Your task to perform on an android device: Search for pizza restaurants on Maps Image 0: 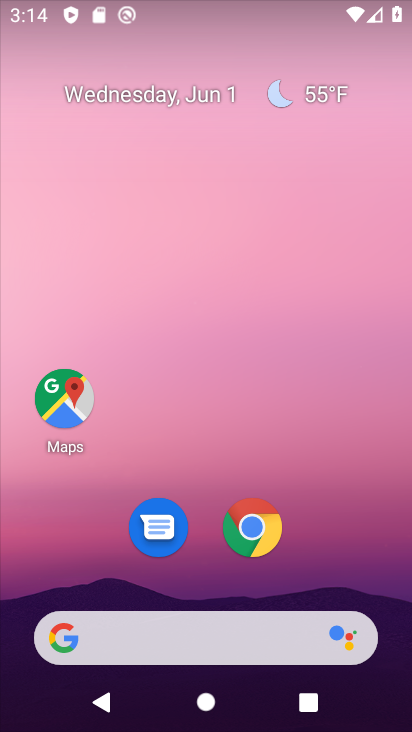
Step 0: press home button
Your task to perform on an android device: Search for pizza restaurants on Maps Image 1: 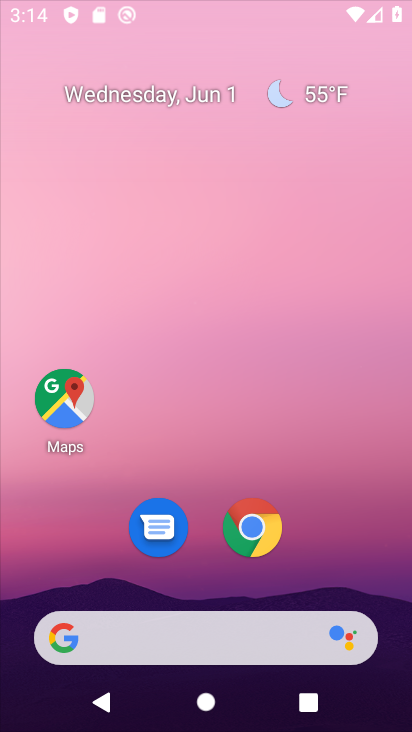
Step 1: drag from (338, 584) to (360, 372)
Your task to perform on an android device: Search for pizza restaurants on Maps Image 2: 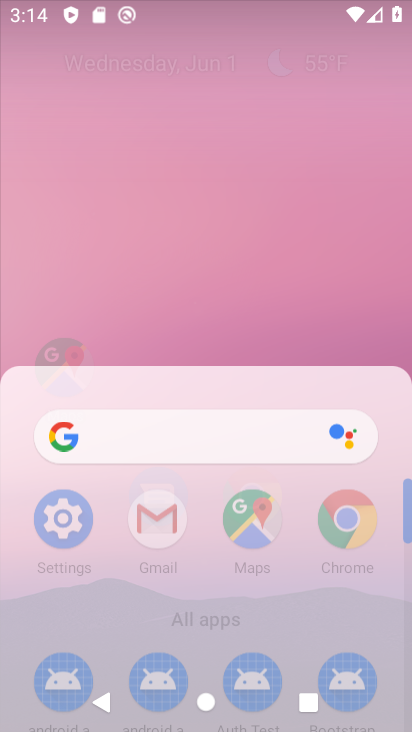
Step 2: drag from (360, 372) to (361, 431)
Your task to perform on an android device: Search for pizza restaurants on Maps Image 3: 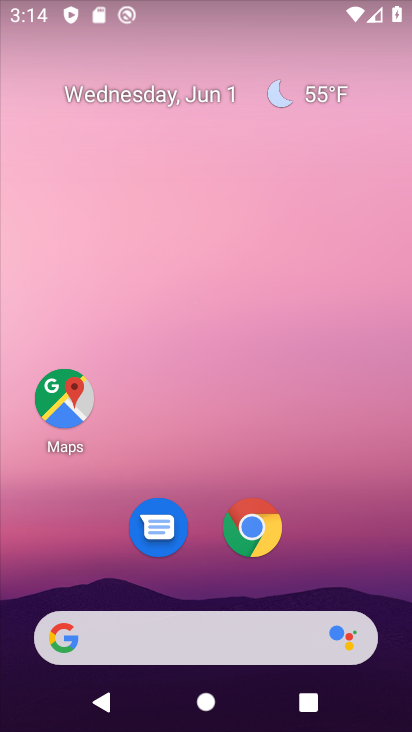
Step 3: drag from (346, 313) to (235, 9)
Your task to perform on an android device: Search for pizza restaurants on Maps Image 4: 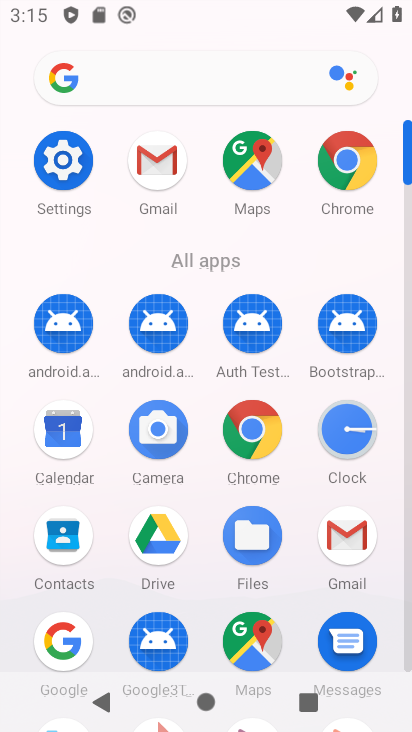
Step 4: click (251, 461)
Your task to perform on an android device: Search for pizza restaurants on Maps Image 5: 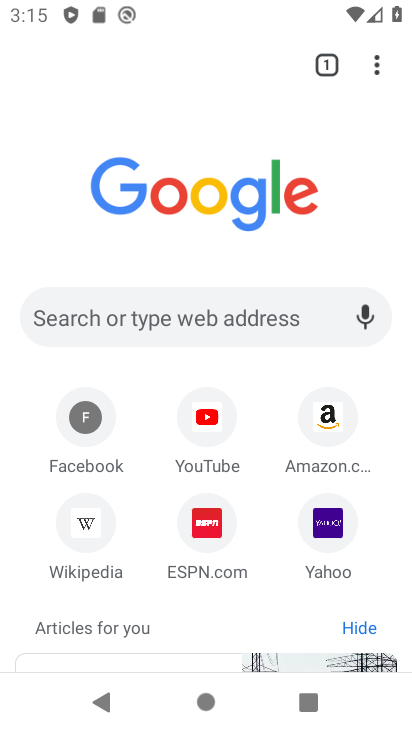
Step 5: press home button
Your task to perform on an android device: Search for pizza restaurants on Maps Image 6: 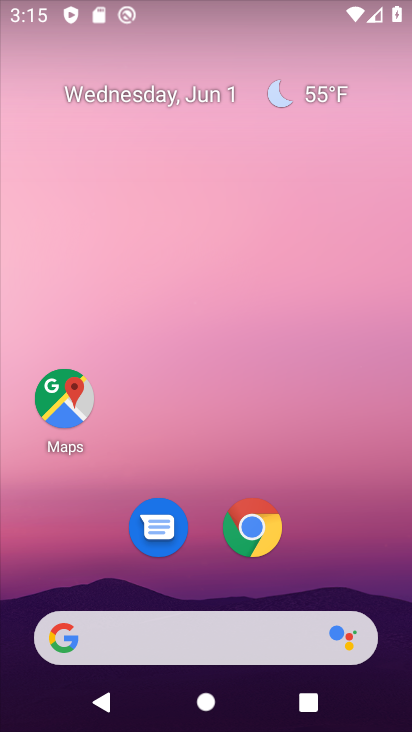
Step 6: click (45, 414)
Your task to perform on an android device: Search for pizza restaurants on Maps Image 7: 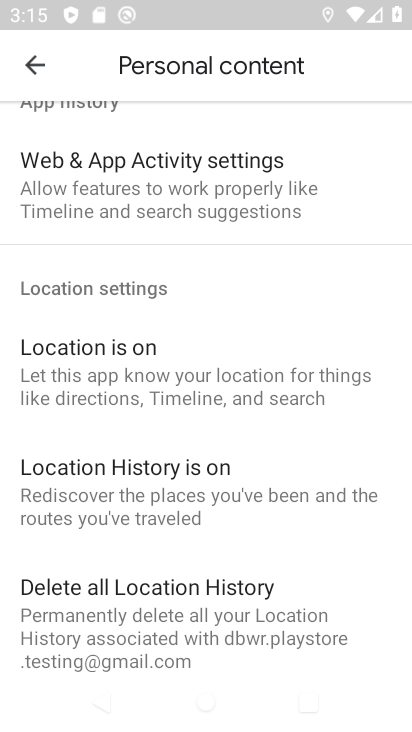
Step 7: click (33, 60)
Your task to perform on an android device: Search for pizza restaurants on Maps Image 8: 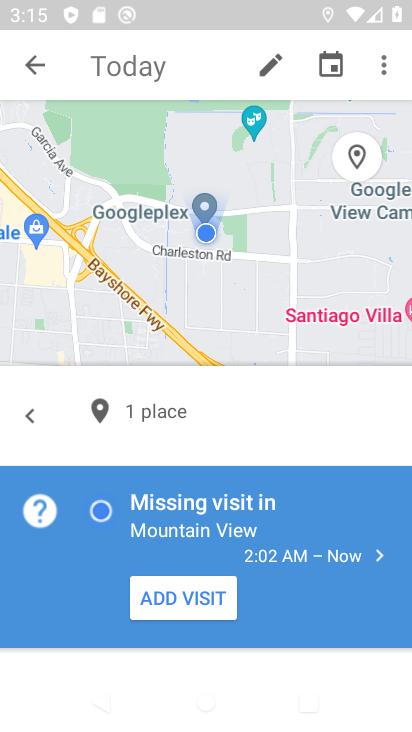
Step 8: click (18, 64)
Your task to perform on an android device: Search for pizza restaurants on Maps Image 9: 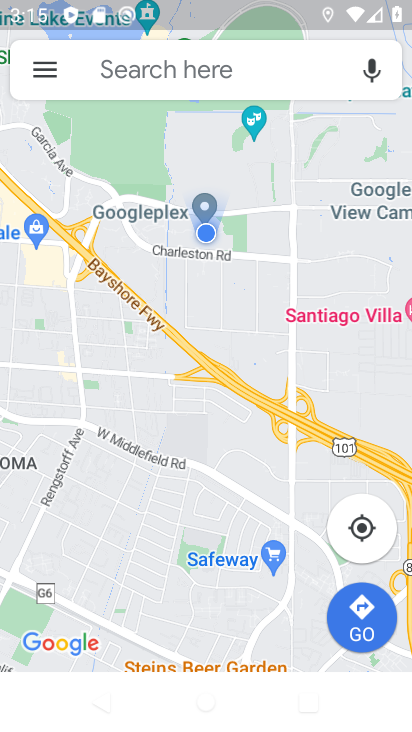
Step 9: click (156, 65)
Your task to perform on an android device: Search for pizza restaurants on Maps Image 10: 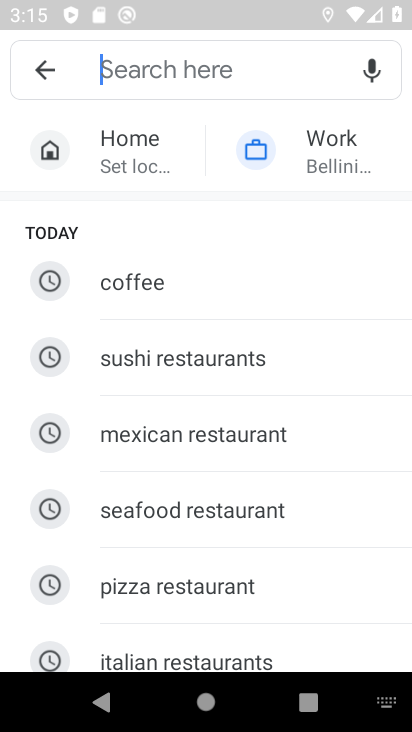
Step 10: type " pizza restaurants"
Your task to perform on an android device: Search for pizza restaurants on Maps Image 11: 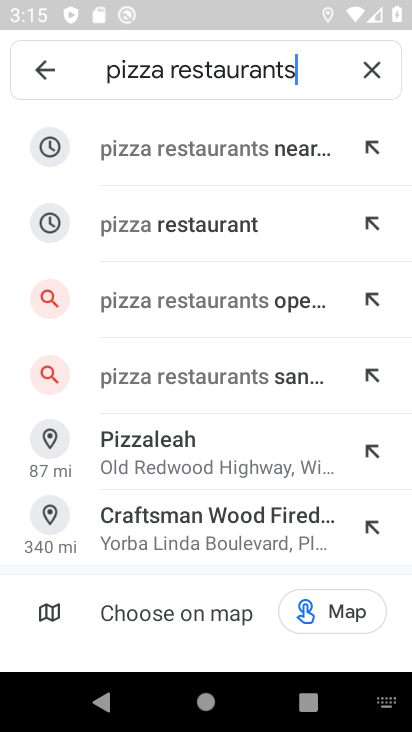
Step 11: click (140, 141)
Your task to perform on an android device: Search for pizza restaurants on Maps Image 12: 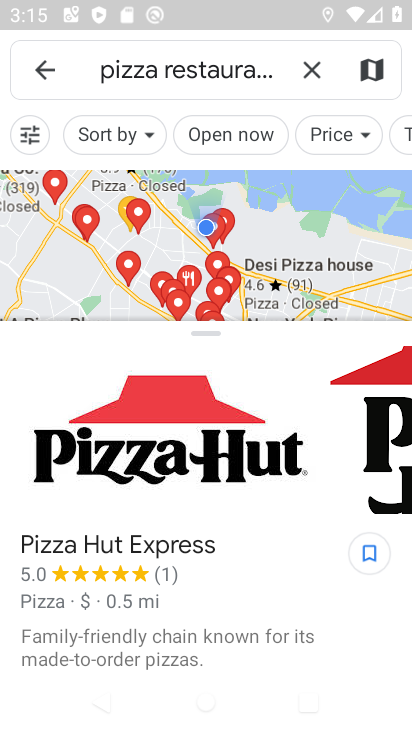
Step 12: task complete